Your task to perform on an android device: Go to battery settings Image 0: 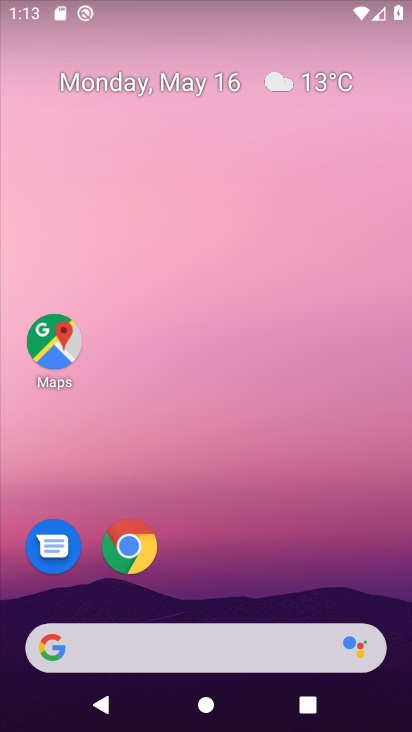
Step 0: drag from (226, 718) to (230, 164)
Your task to perform on an android device: Go to battery settings Image 1: 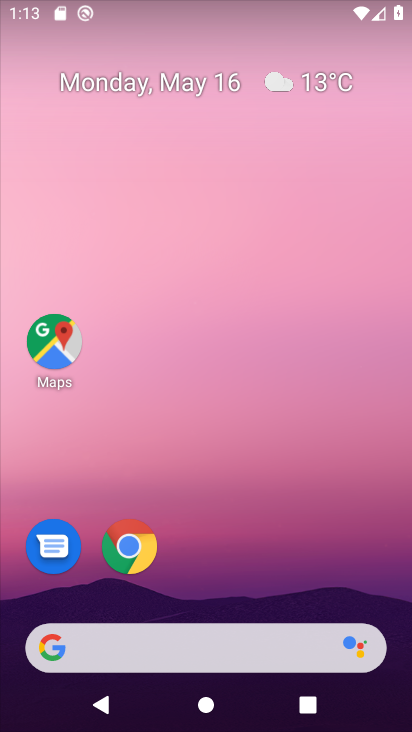
Step 1: drag from (228, 715) to (235, 107)
Your task to perform on an android device: Go to battery settings Image 2: 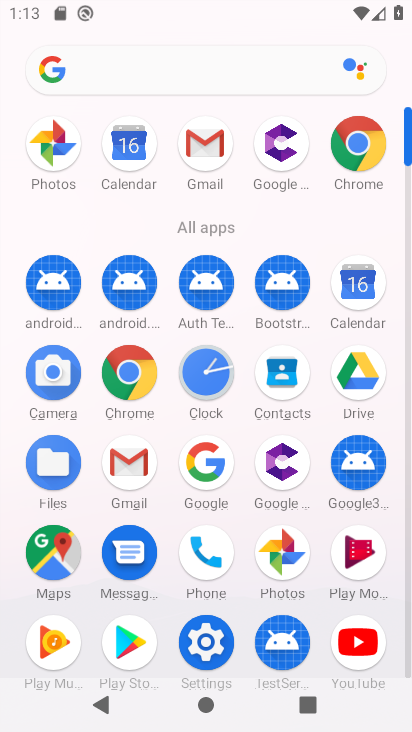
Step 2: click (206, 643)
Your task to perform on an android device: Go to battery settings Image 3: 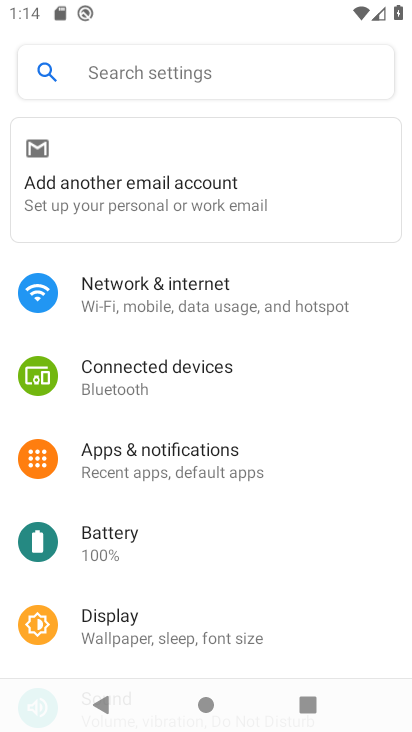
Step 3: click (117, 541)
Your task to perform on an android device: Go to battery settings Image 4: 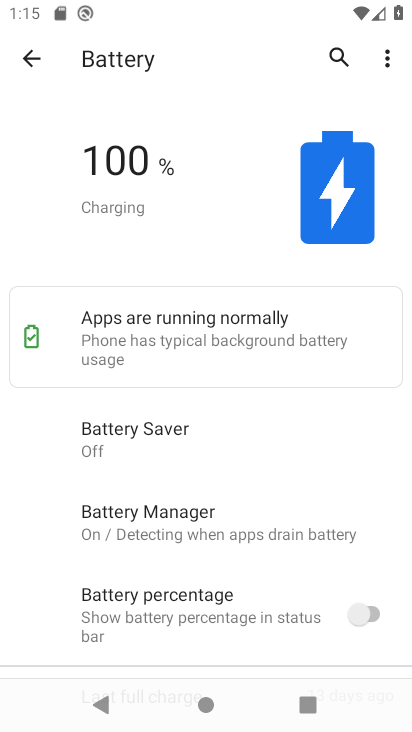
Step 4: task complete